Your task to perform on an android device: Open network settings Image 0: 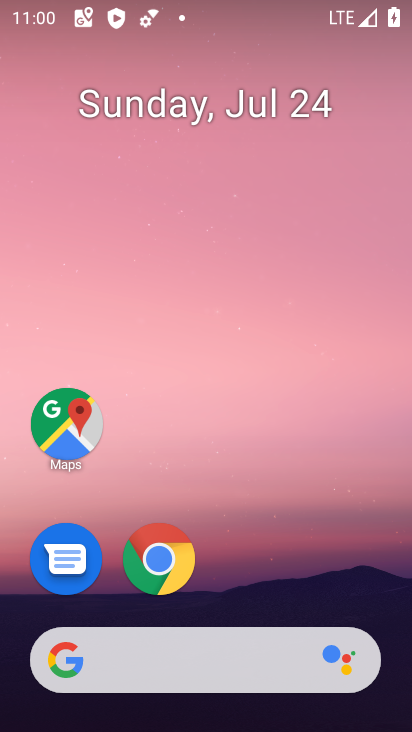
Step 0: click (254, 0)
Your task to perform on an android device: Open network settings Image 1: 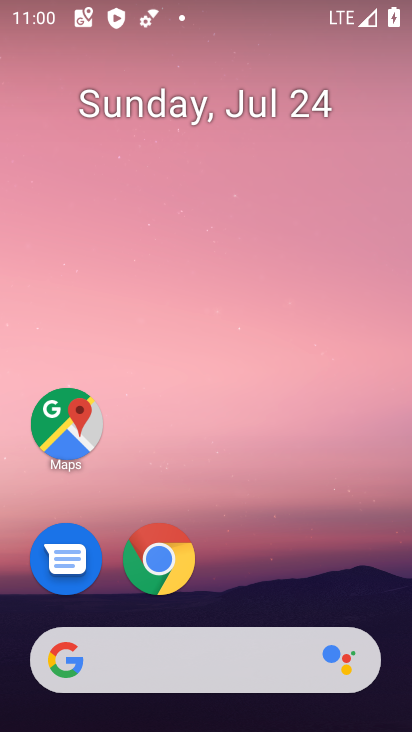
Step 1: drag from (244, 562) to (284, 3)
Your task to perform on an android device: Open network settings Image 2: 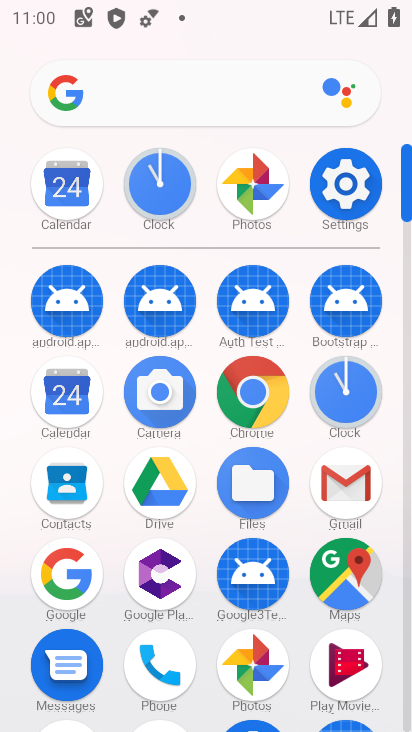
Step 2: click (335, 186)
Your task to perform on an android device: Open network settings Image 3: 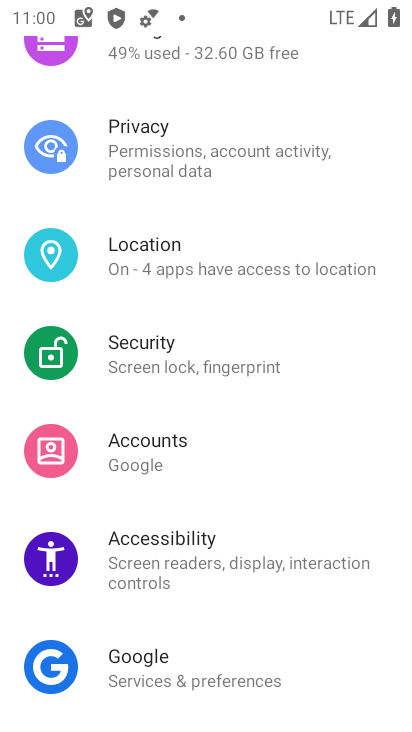
Step 3: drag from (250, 185) to (189, 662)
Your task to perform on an android device: Open network settings Image 4: 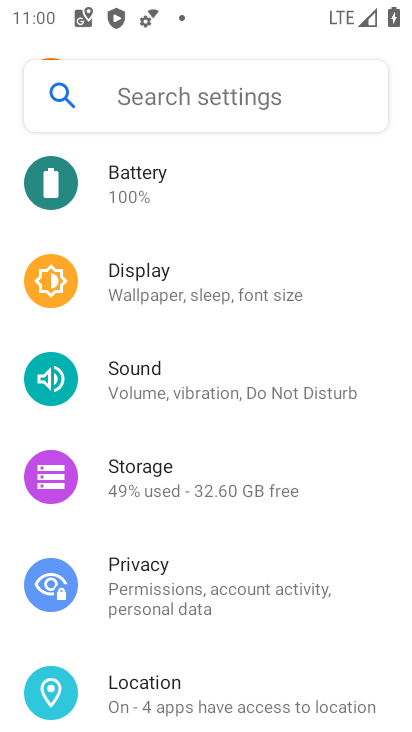
Step 4: drag from (179, 206) to (171, 726)
Your task to perform on an android device: Open network settings Image 5: 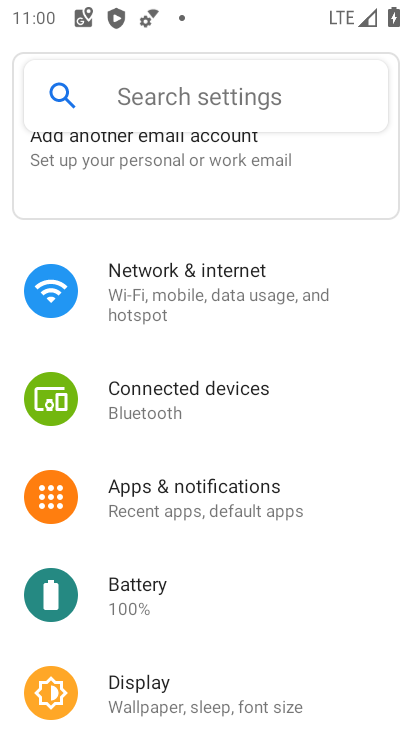
Step 5: click (151, 263)
Your task to perform on an android device: Open network settings Image 6: 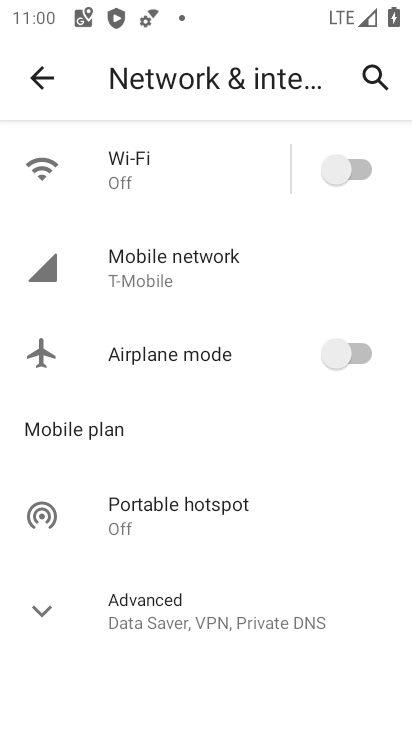
Step 6: task complete